Your task to perform on an android device: Open settings Image 0: 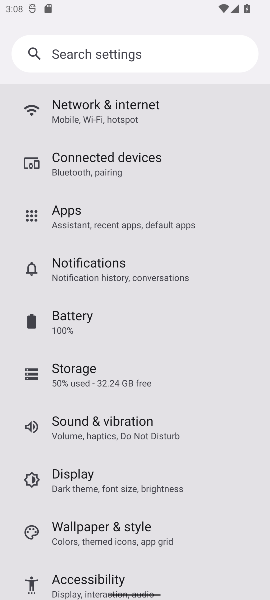
Step 0: press home button
Your task to perform on an android device: Open settings Image 1: 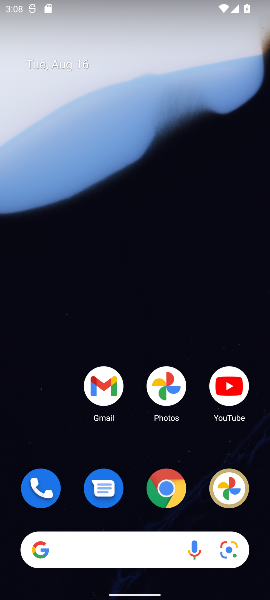
Step 1: drag from (50, 393) to (76, 72)
Your task to perform on an android device: Open settings Image 2: 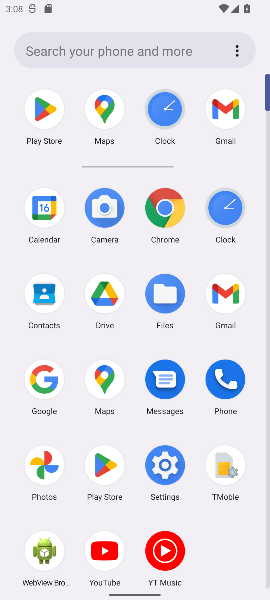
Step 2: click (165, 464)
Your task to perform on an android device: Open settings Image 3: 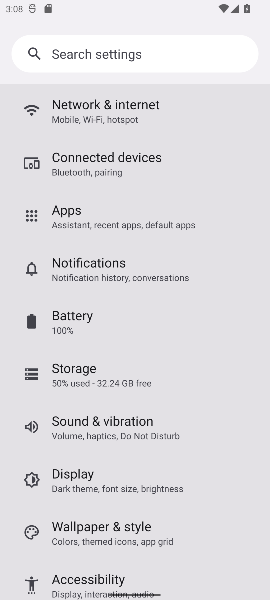
Step 3: task complete